Your task to perform on an android device: turn off data saver in the chrome app Image 0: 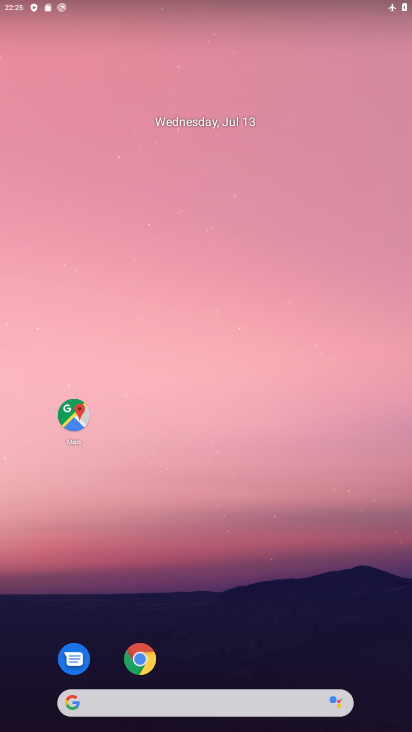
Step 0: click (143, 658)
Your task to perform on an android device: turn off data saver in the chrome app Image 1: 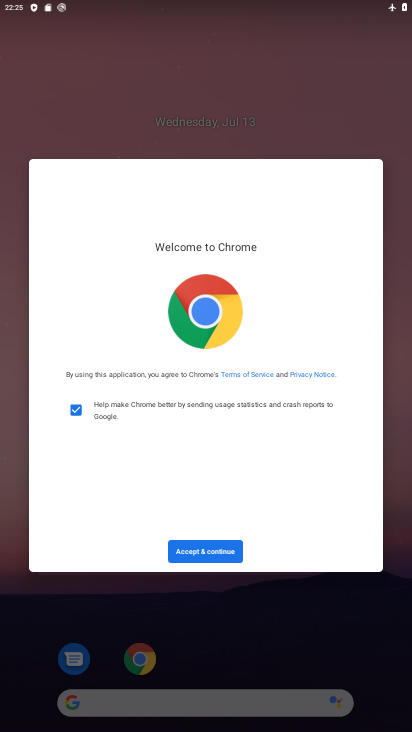
Step 1: click (202, 551)
Your task to perform on an android device: turn off data saver in the chrome app Image 2: 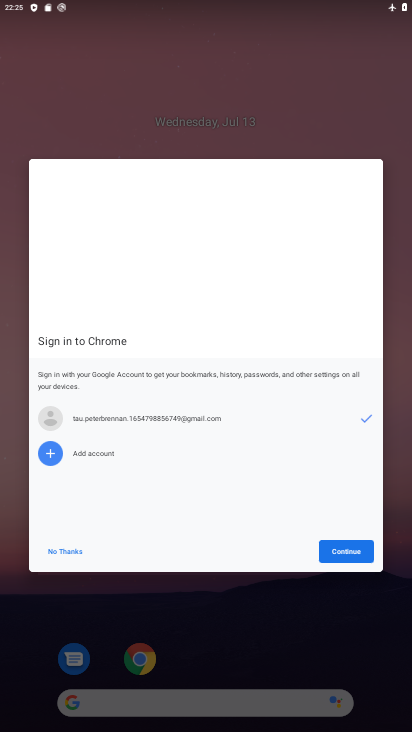
Step 2: click (342, 548)
Your task to perform on an android device: turn off data saver in the chrome app Image 3: 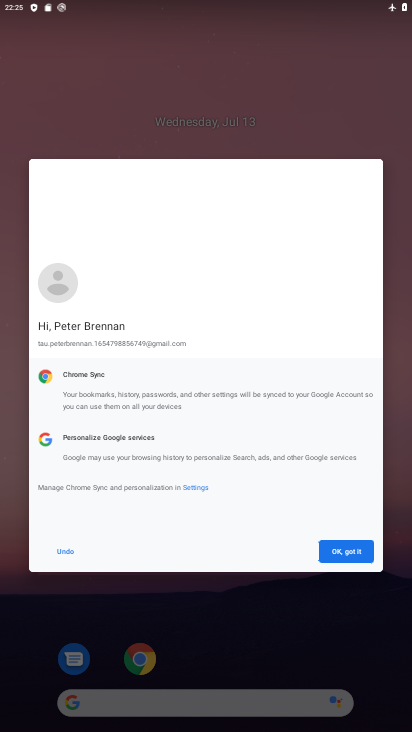
Step 3: click (342, 548)
Your task to perform on an android device: turn off data saver in the chrome app Image 4: 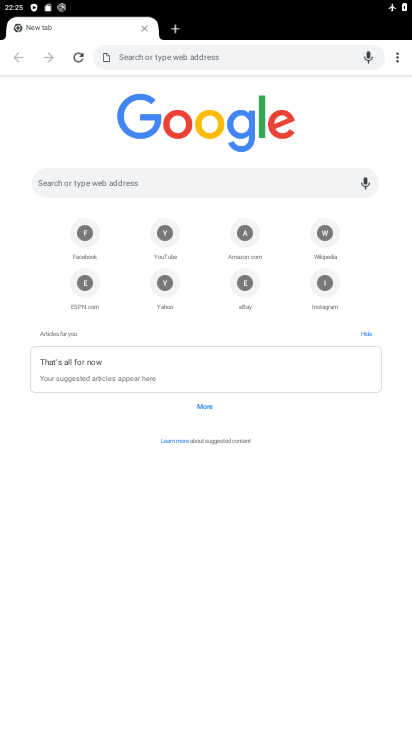
Step 4: click (398, 62)
Your task to perform on an android device: turn off data saver in the chrome app Image 5: 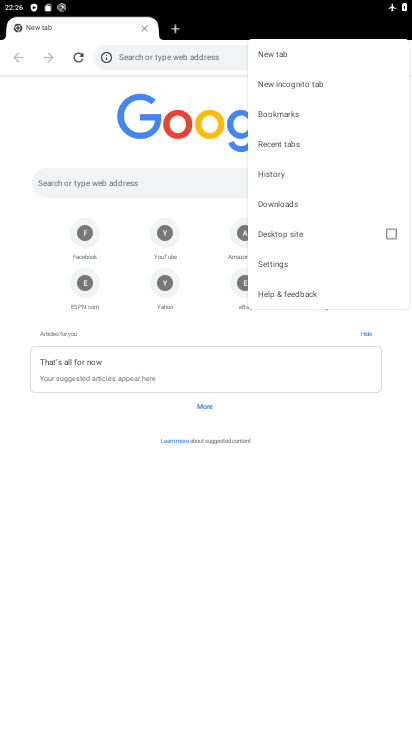
Step 5: click (266, 261)
Your task to perform on an android device: turn off data saver in the chrome app Image 6: 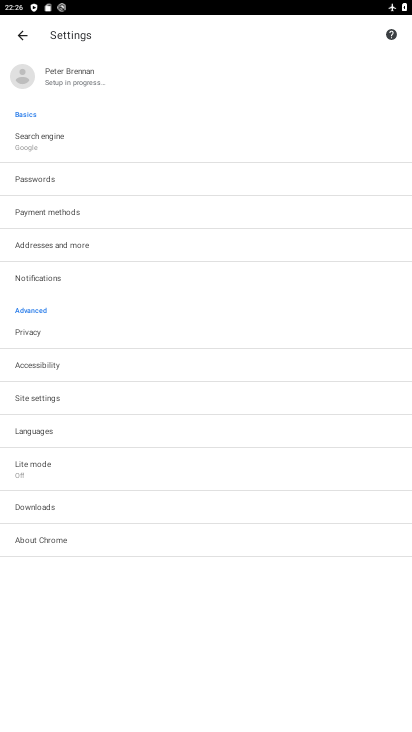
Step 6: click (28, 467)
Your task to perform on an android device: turn off data saver in the chrome app Image 7: 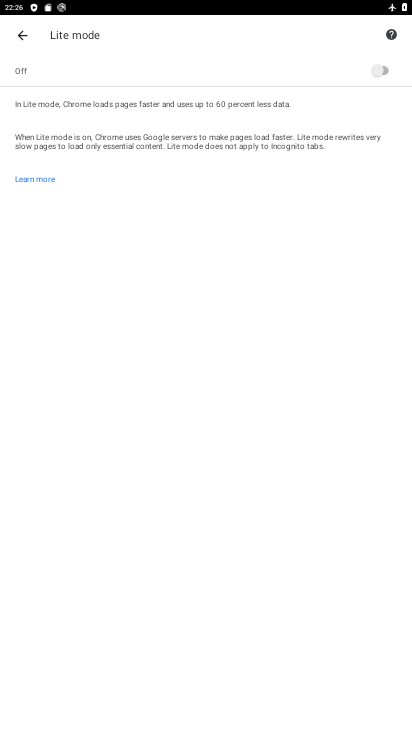
Step 7: task complete